Your task to perform on an android device: allow cookies in the chrome app Image 0: 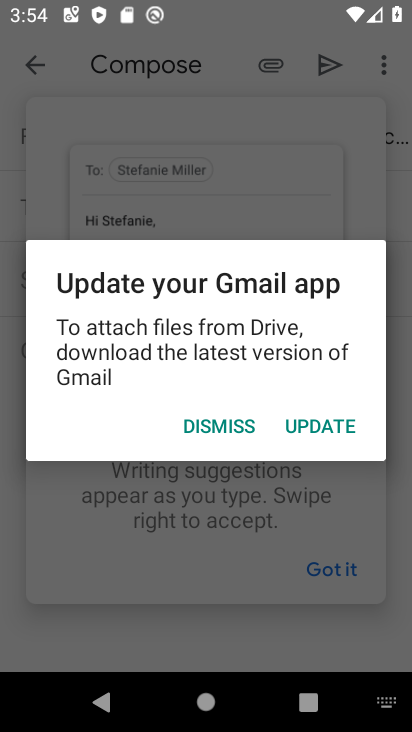
Step 0: press home button
Your task to perform on an android device: allow cookies in the chrome app Image 1: 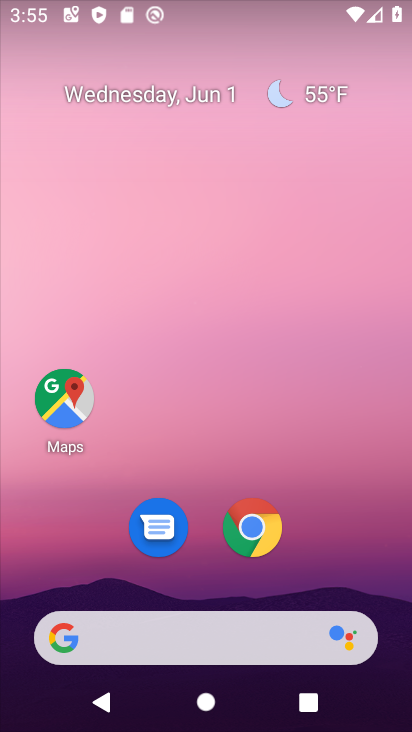
Step 1: drag from (311, 579) to (271, 231)
Your task to perform on an android device: allow cookies in the chrome app Image 2: 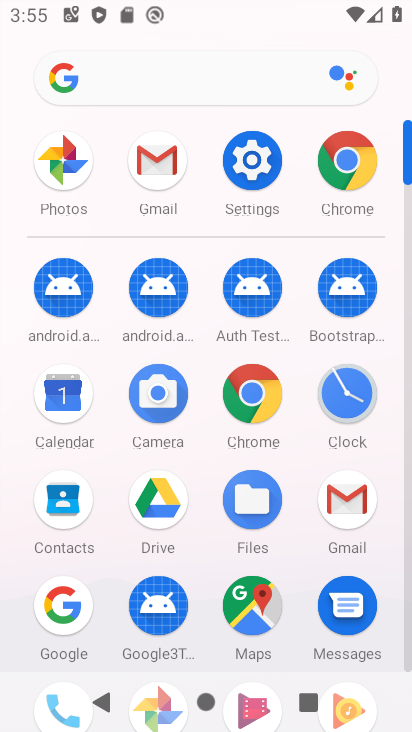
Step 2: click (252, 401)
Your task to perform on an android device: allow cookies in the chrome app Image 3: 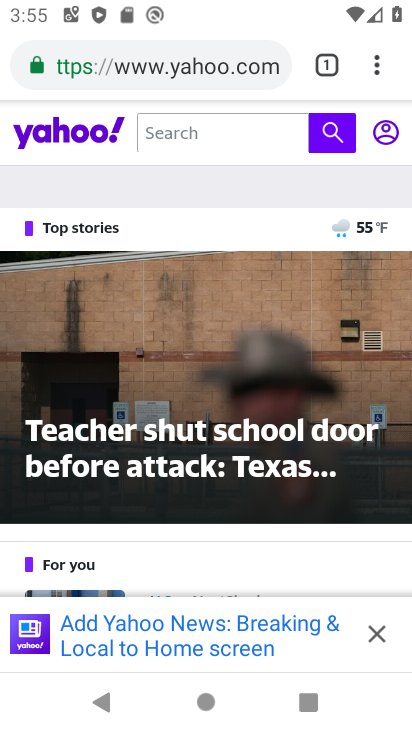
Step 3: drag from (379, 58) to (183, 576)
Your task to perform on an android device: allow cookies in the chrome app Image 4: 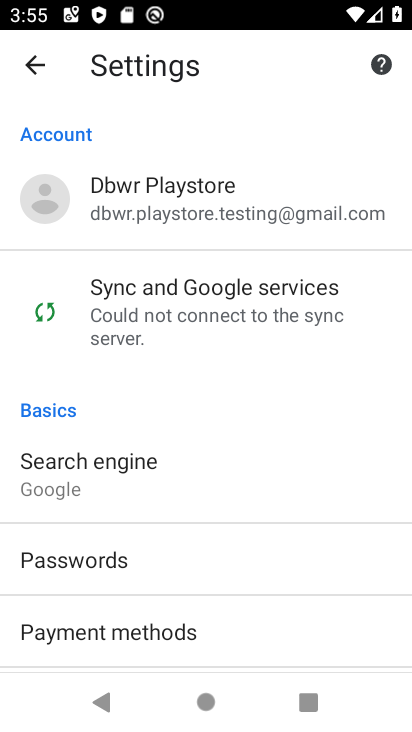
Step 4: drag from (180, 580) to (205, 154)
Your task to perform on an android device: allow cookies in the chrome app Image 5: 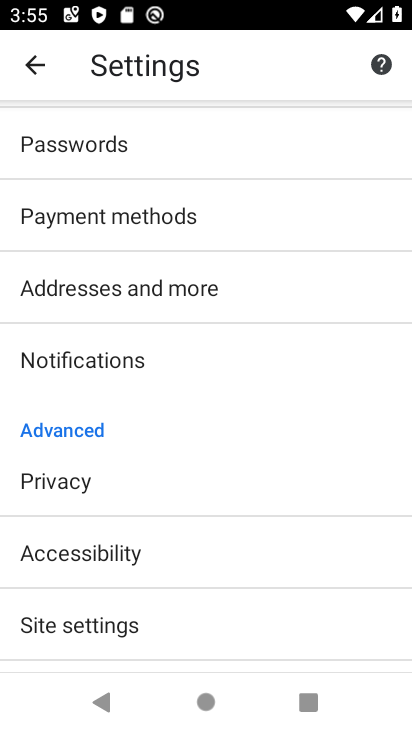
Step 5: drag from (167, 631) to (219, 219)
Your task to perform on an android device: allow cookies in the chrome app Image 6: 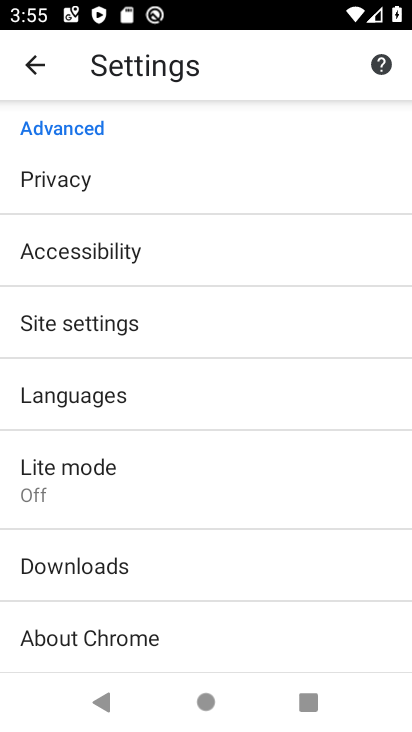
Step 6: click (95, 321)
Your task to perform on an android device: allow cookies in the chrome app Image 7: 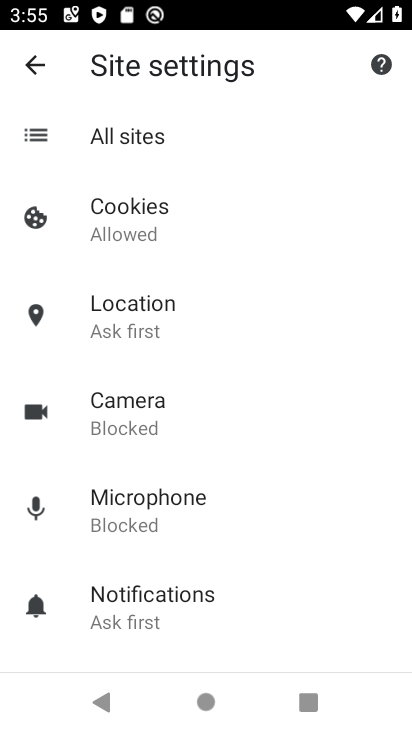
Step 7: click (109, 212)
Your task to perform on an android device: allow cookies in the chrome app Image 8: 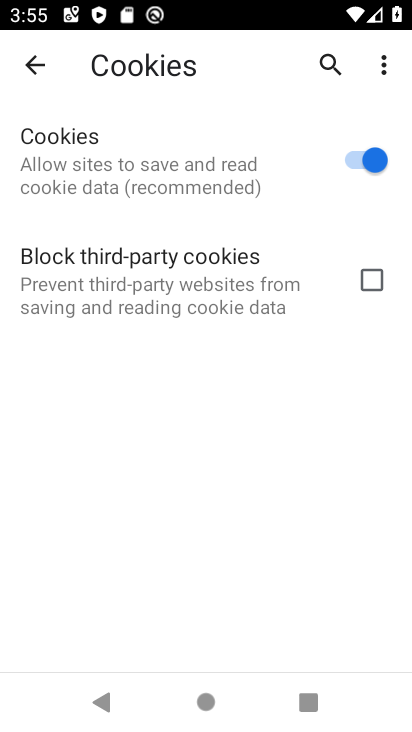
Step 8: task complete